Your task to perform on an android device: Open notification settings Image 0: 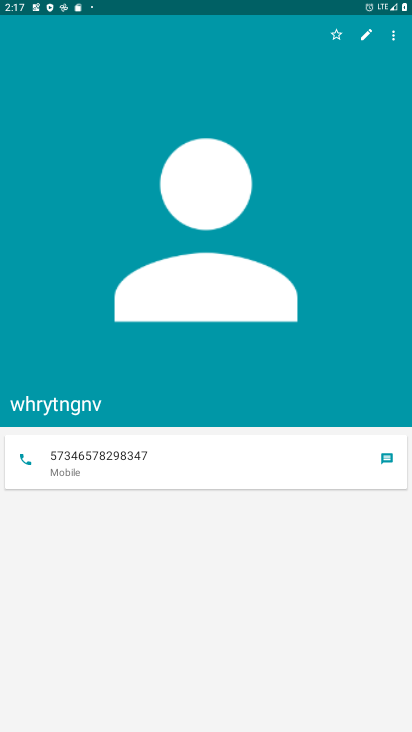
Step 0: press home button
Your task to perform on an android device: Open notification settings Image 1: 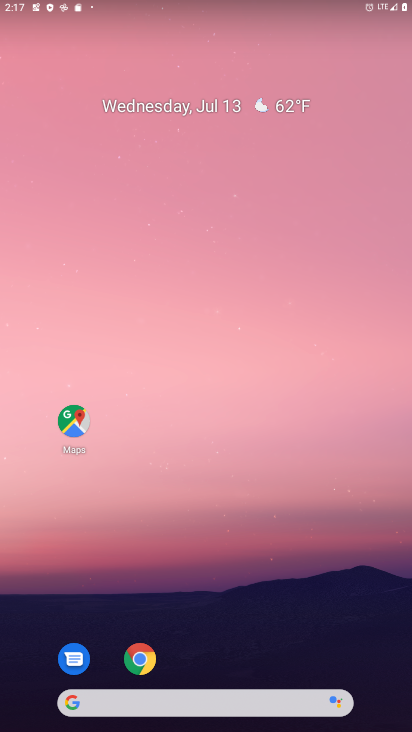
Step 1: drag from (233, 717) to (233, 631)
Your task to perform on an android device: Open notification settings Image 2: 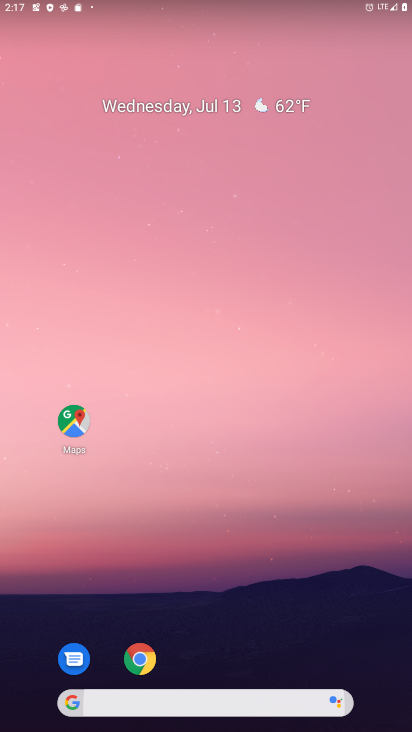
Step 2: drag from (233, 308) to (233, 93)
Your task to perform on an android device: Open notification settings Image 3: 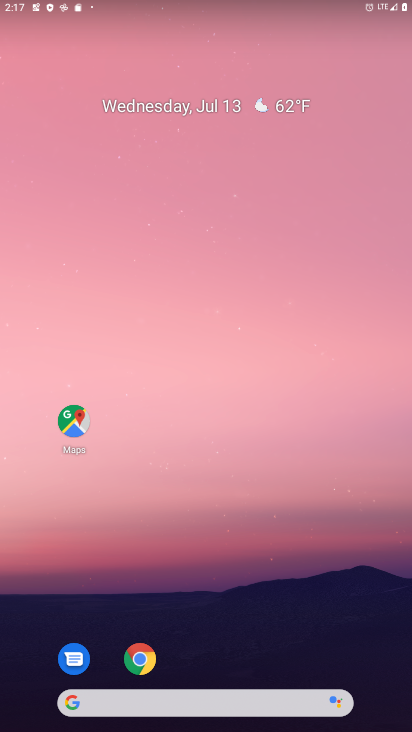
Step 3: drag from (224, 730) to (222, 41)
Your task to perform on an android device: Open notification settings Image 4: 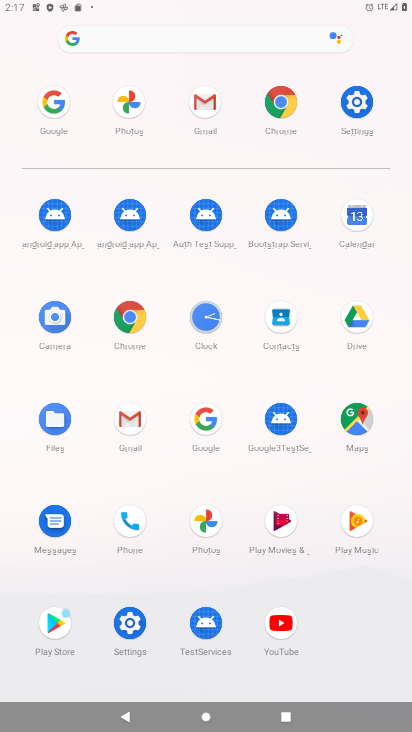
Step 4: click (359, 106)
Your task to perform on an android device: Open notification settings Image 5: 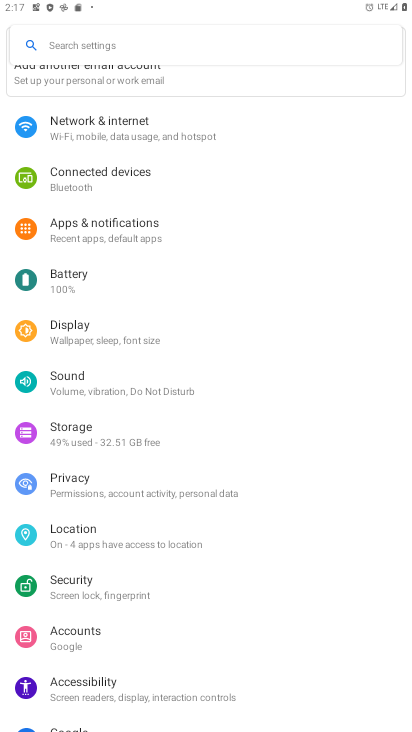
Step 5: click (96, 234)
Your task to perform on an android device: Open notification settings Image 6: 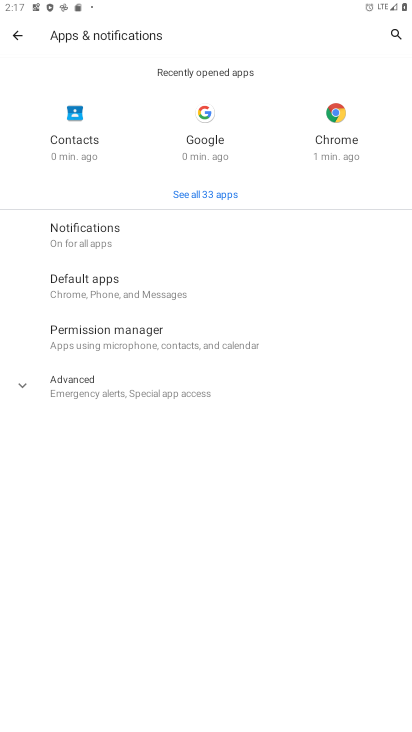
Step 6: click (90, 235)
Your task to perform on an android device: Open notification settings Image 7: 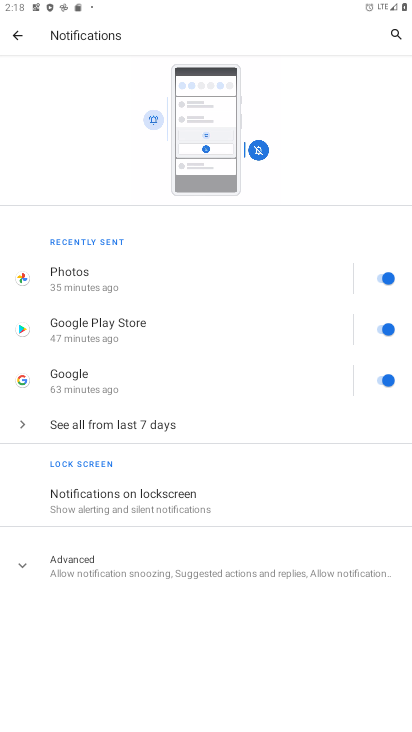
Step 7: task complete